Your task to perform on an android device: Search for the top rated book on goodreads. Image 0: 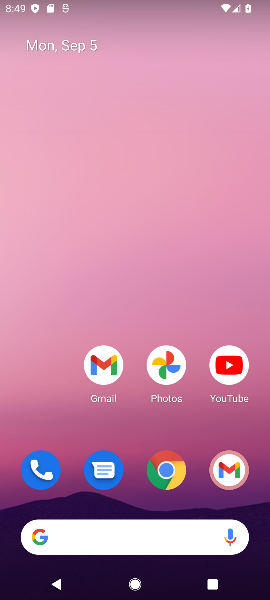
Step 0: click (120, 528)
Your task to perform on an android device: Search for the top rated book on goodreads. Image 1: 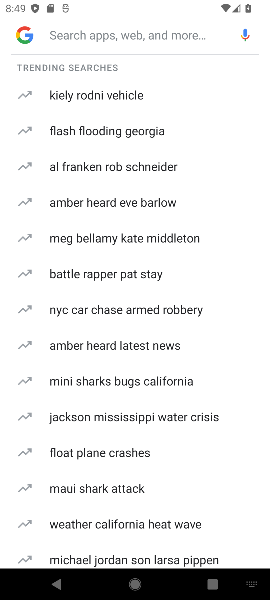
Step 1: type "goodreads"
Your task to perform on an android device: Search for the top rated book on goodreads. Image 2: 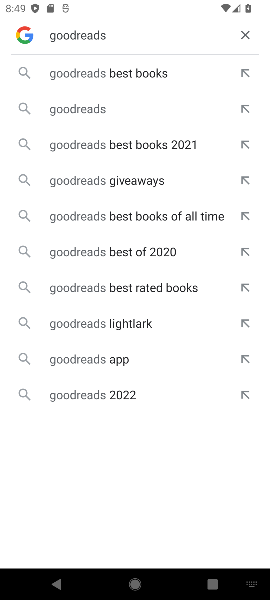
Step 2: click (91, 109)
Your task to perform on an android device: Search for the top rated book on goodreads. Image 3: 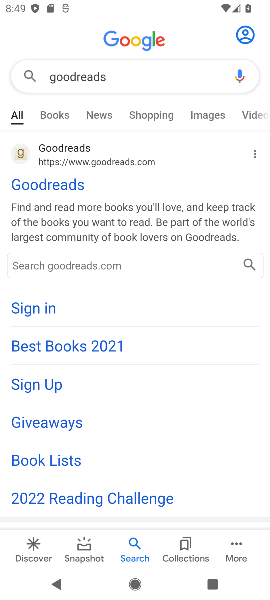
Step 3: click (48, 180)
Your task to perform on an android device: Search for the top rated book on goodreads. Image 4: 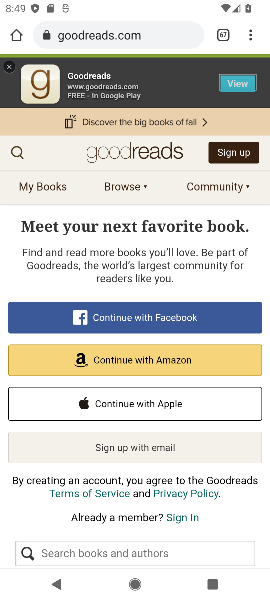
Step 4: click (15, 149)
Your task to perform on an android device: Search for the top rated book on goodreads. Image 5: 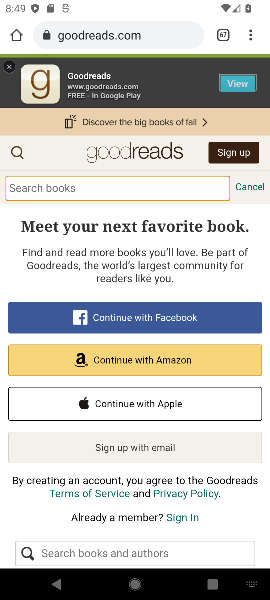
Step 5: type "top rated book"
Your task to perform on an android device: Search for the top rated book on goodreads. Image 6: 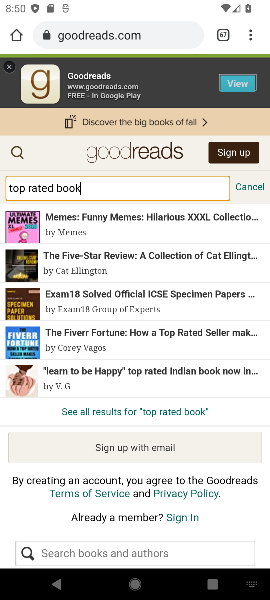
Step 6: click (139, 412)
Your task to perform on an android device: Search for the top rated book on goodreads. Image 7: 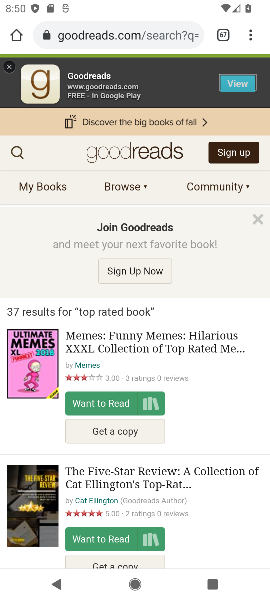
Step 7: task complete